Your task to perform on an android device: turn on improve location accuracy Image 0: 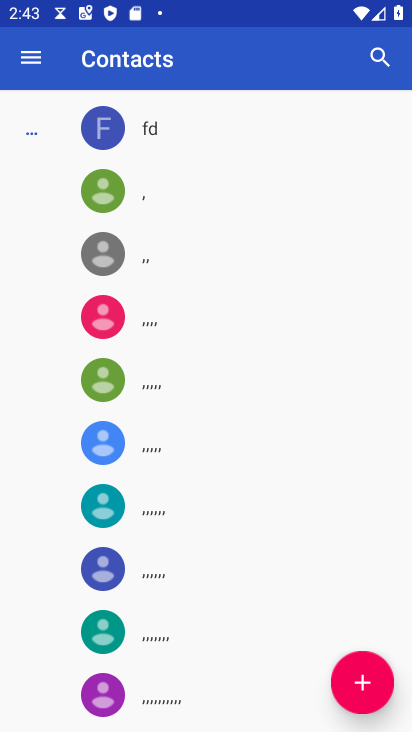
Step 0: press home button
Your task to perform on an android device: turn on improve location accuracy Image 1: 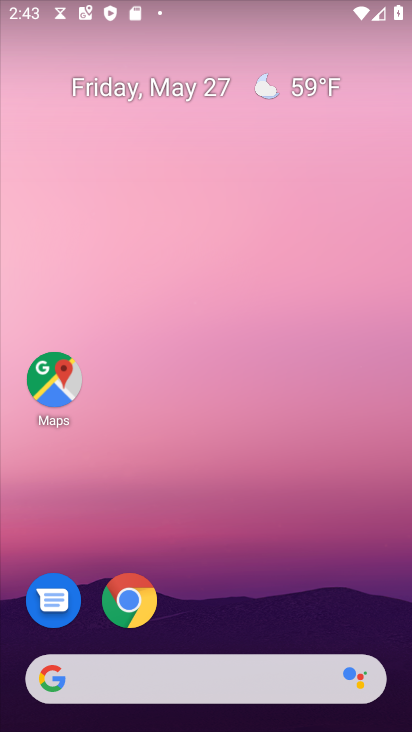
Step 1: drag from (267, 581) to (250, 78)
Your task to perform on an android device: turn on improve location accuracy Image 2: 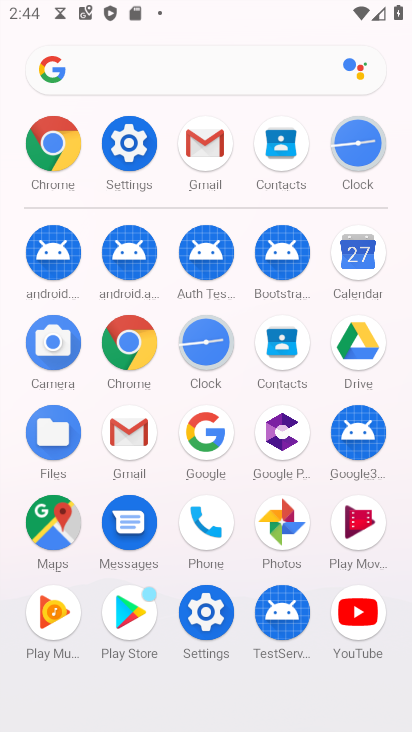
Step 2: click (206, 611)
Your task to perform on an android device: turn on improve location accuracy Image 3: 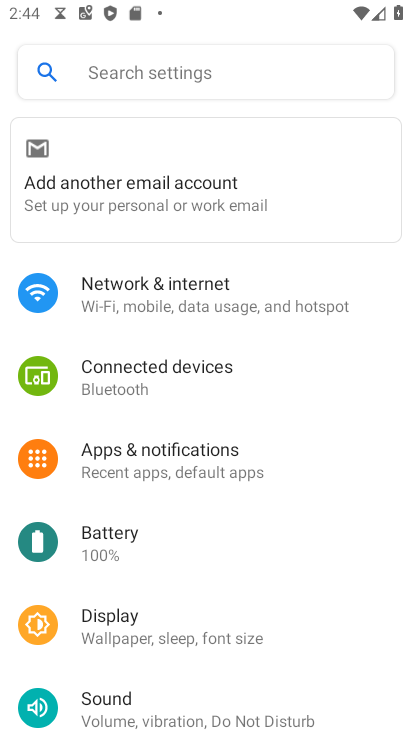
Step 3: drag from (154, 585) to (182, 465)
Your task to perform on an android device: turn on improve location accuracy Image 4: 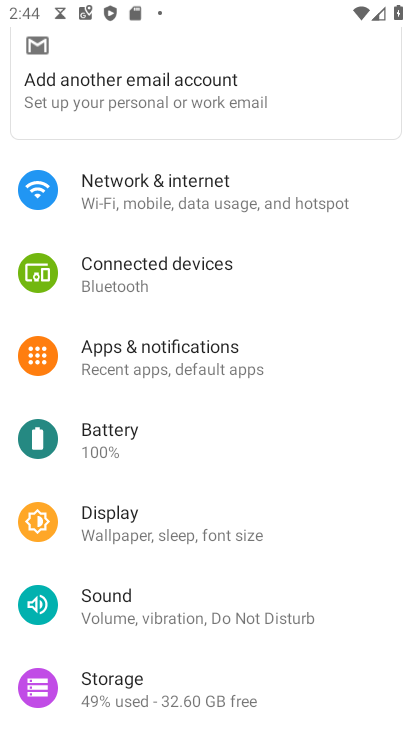
Step 4: drag from (158, 570) to (179, 457)
Your task to perform on an android device: turn on improve location accuracy Image 5: 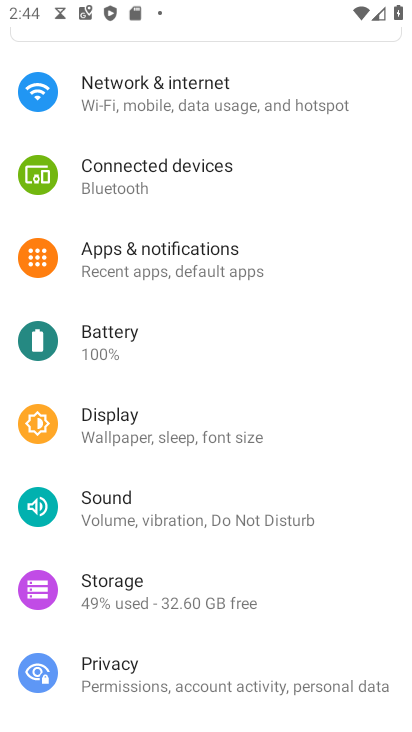
Step 5: drag from (133, 631) to (224, 518)
Your task to perform on an android device: turn on improve location accuracy Image 6: 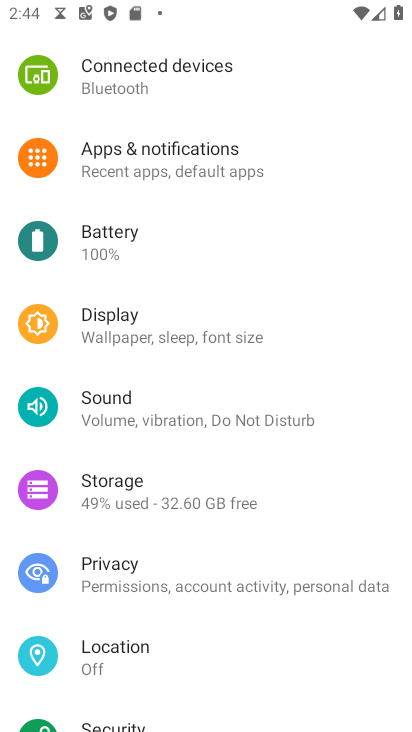
Step 6: click (129, 645)
Your task to perform on an android device: turn on improve location accuracy Image 7: 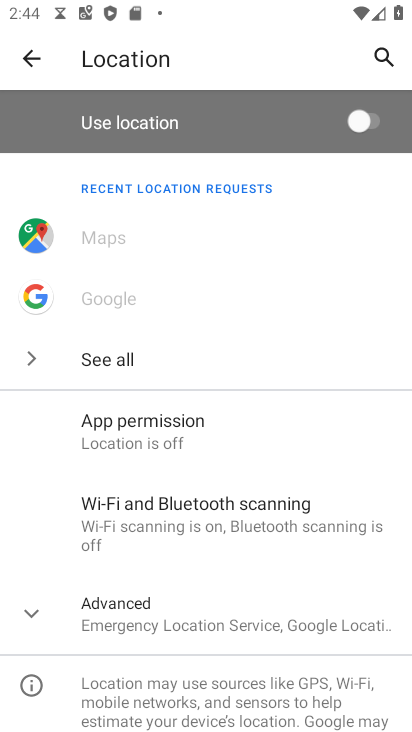
Step 7: click (156, 604)
Your task to perform on an android device: turn on improve location accuracy Image 8: 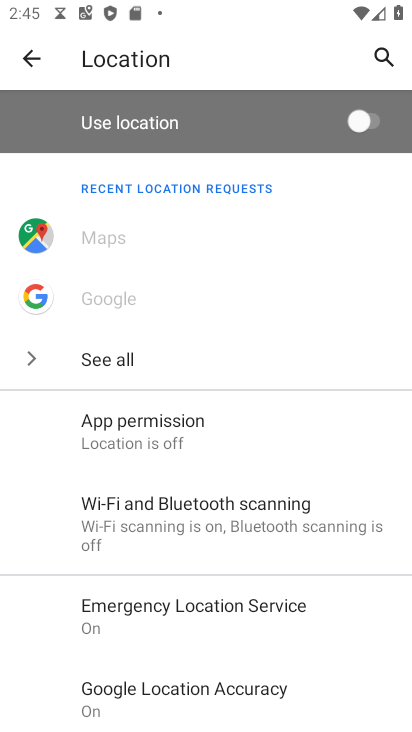
Step 8: task complete